Your task to perform on an android device: move an email to a new category in the gmail app Image 0: 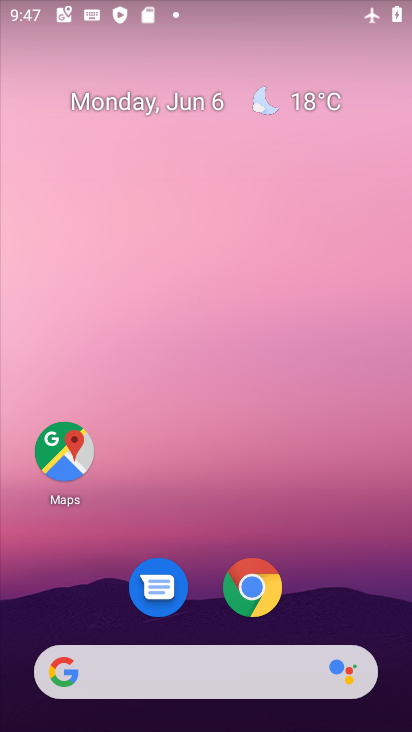
Step 0: drag from (330, 582) to (304, 106)
Your task to perform on an android device: move an email to a new category in the gmail app Image 1: 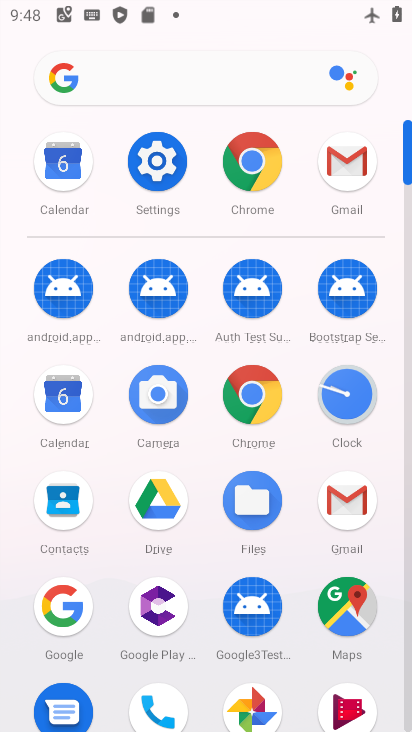
Step 1: click (360, 170)
Your task to perform on an android device: move an email to a new category in the gmail app Image 2: 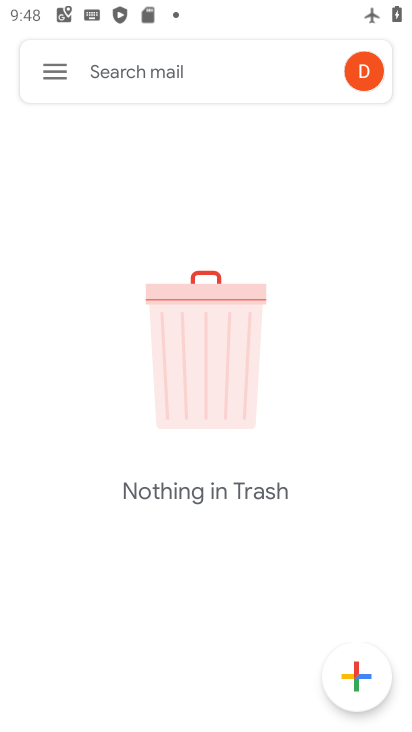
Step 2: click (46, 70)
Your task to perform on an android device: move an email to a new category in the gmail app Image 3: 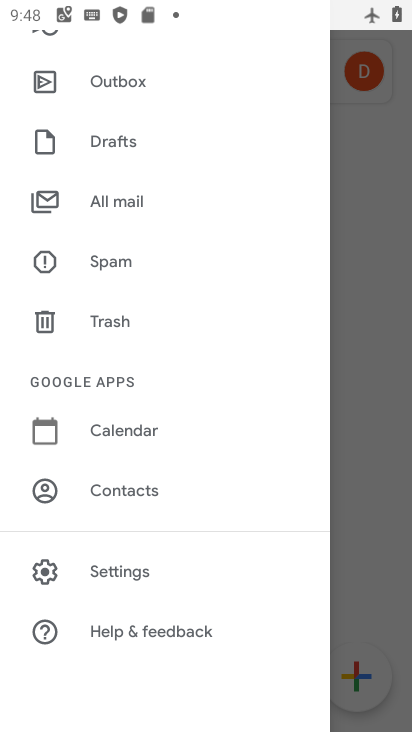
Step 3: click (122, 215)
Your task to perform on an android device: move an email to a new category in the gmail app Image 4: 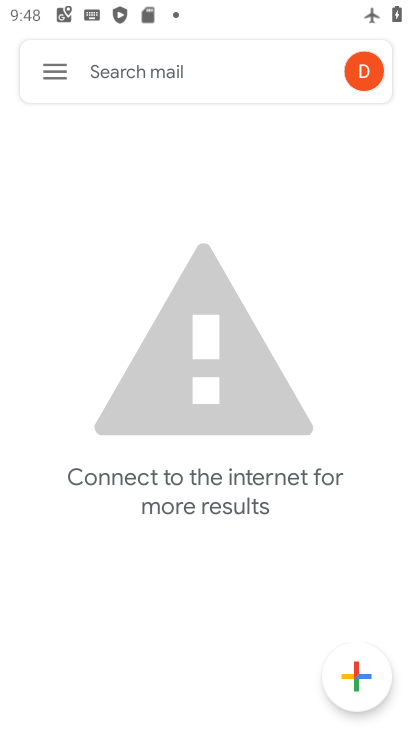
Step 4: task complete